Your task to perform on an android device: Open the calendar and show me this week's events Image 0: 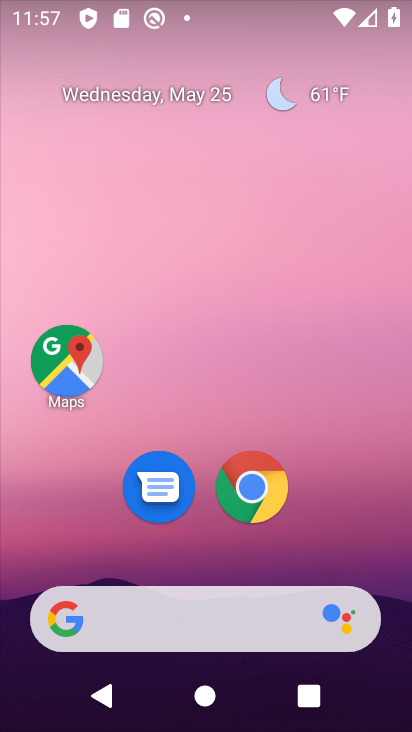
Step 0: drag from (300, 672) to (249, 369)
Your task to perform on an android device: Open the calendar and show me this week's events Image 1: 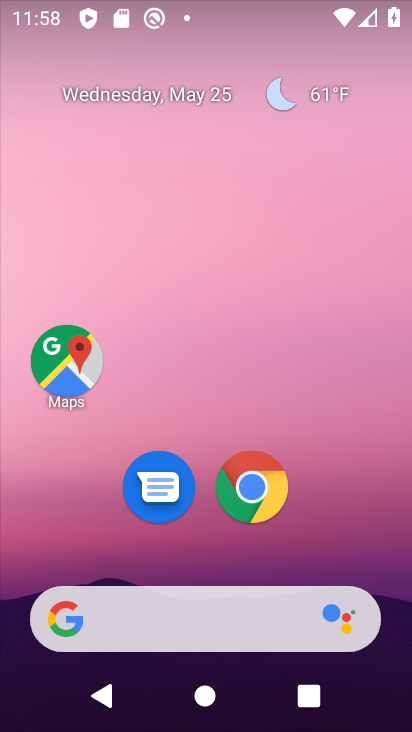
Step 1: drag from (380, 671) to (252, 124)
Your task to perform on an android device: Open the calendar and show me this week's events Image 2: 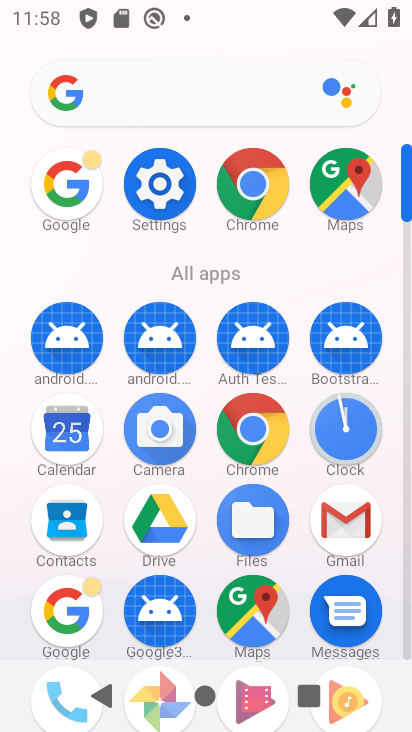
Step 2: click (60, 433)
Your task to perform on an android device: Open the calendar and show me this week's events Image 3: 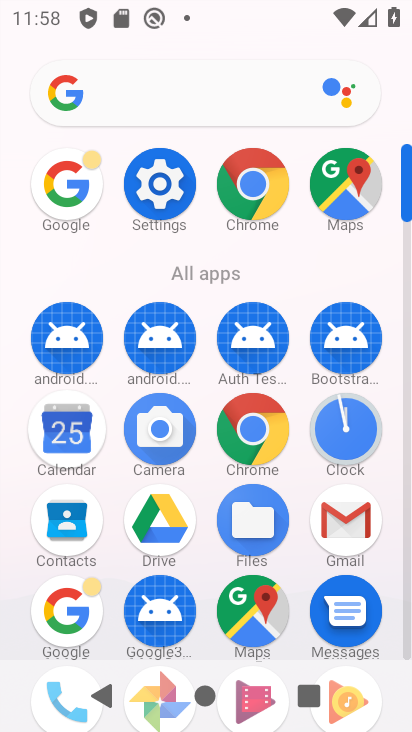
Step 3: click (61, 433)
Your task to perform on an android device: Open the calendar and show me this week's events Image 4: 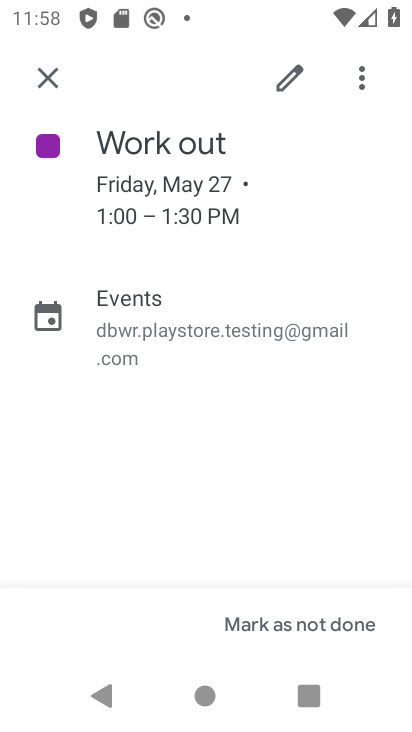
Step 4: click (41, 74)
Your task to perform on an android device: Open the calendar and show me this week's events Image 5: 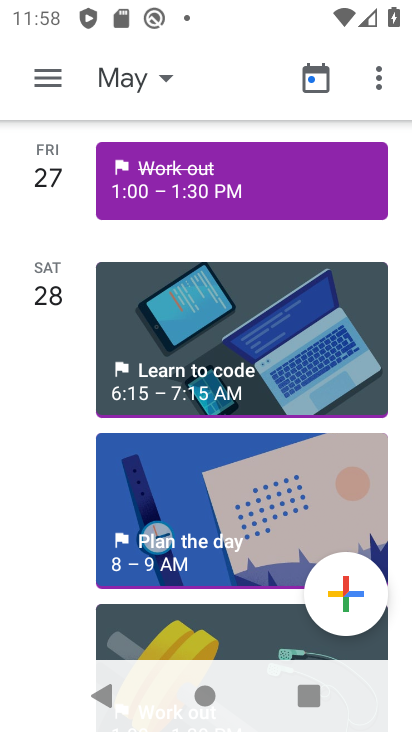
Step 5: drag from (153, 471) to (157, 76)
Your task to perform on an android device: Open the calendar and show me this week's events Image 6: 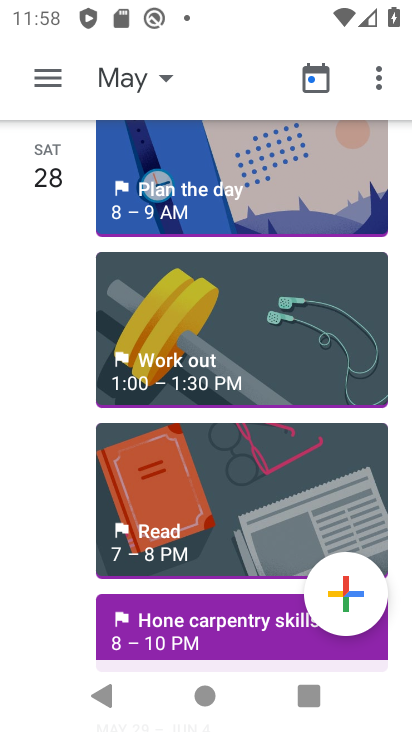
Step 6: click (146, 174)
Your task to perform on an android device: Open the calendar and show me this week's events Image 7: 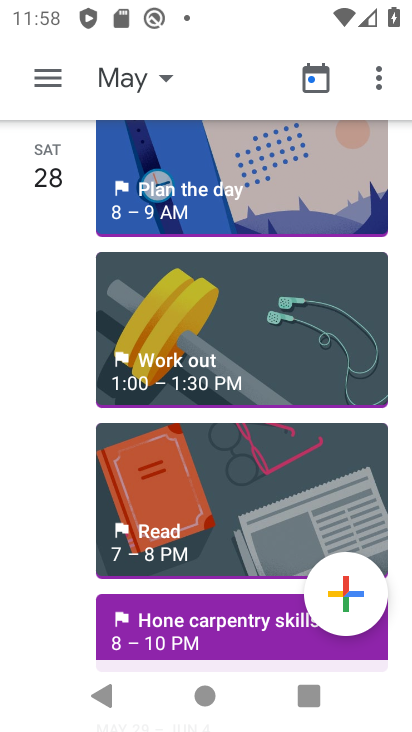
Step 7: click (148, 174)
Your task to perform on an android device: Open the calendar and show me this week's events Image 8: 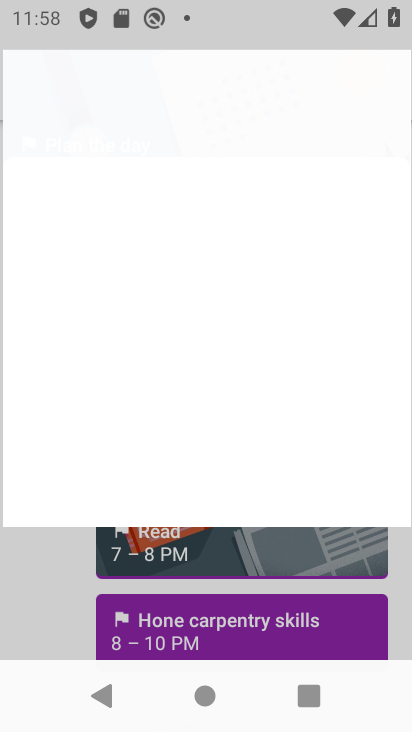
Step 8: click (149, 173)
Your task to perform on an android device: Open the calendar and show me this week's events Image 9: 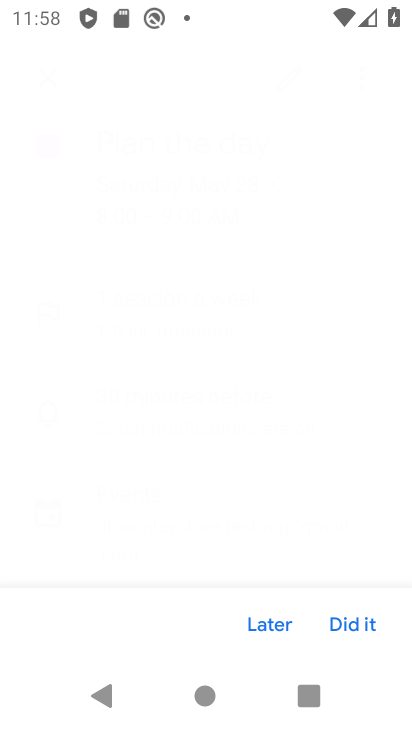
Step 9: click (149, 173)
Your task to perform on an android device: Open the calendar and show me this week's events Image 10: 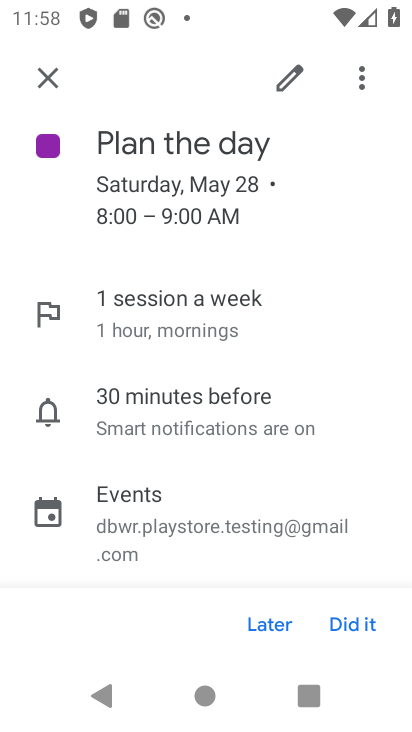
Step 10: click (149, 173)
Your task to perform on an android device: Open the calendar and show me this week's events Image 11: 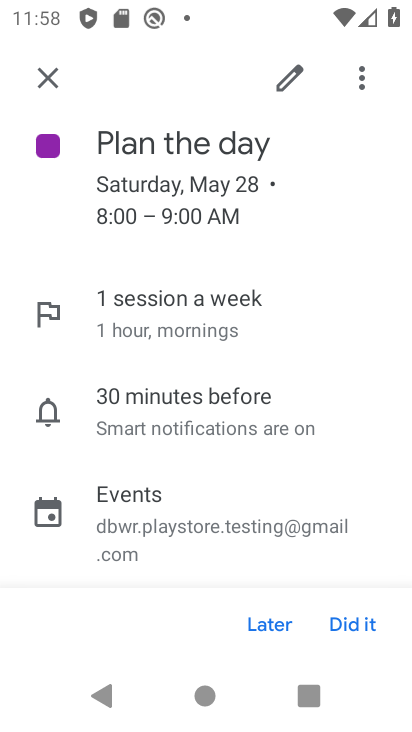
Step 11: task complete